Your task to perform on an android device: Go to Yahoo.com Image 0: 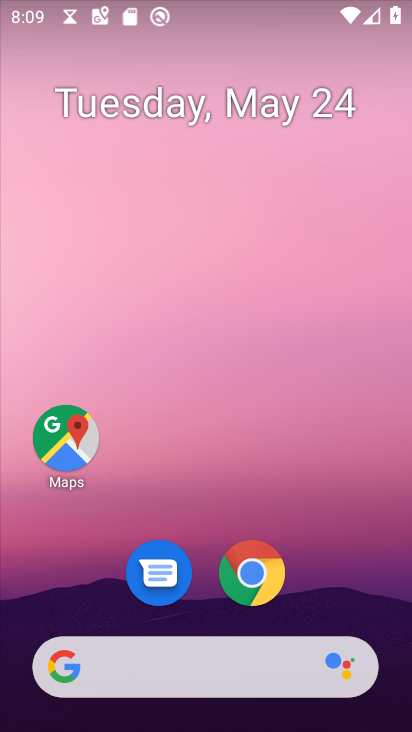
Step 0: drag from (352, 527) to (281, 3)
Your task to perform on an android device: Go to Yahoo.com Image 1: 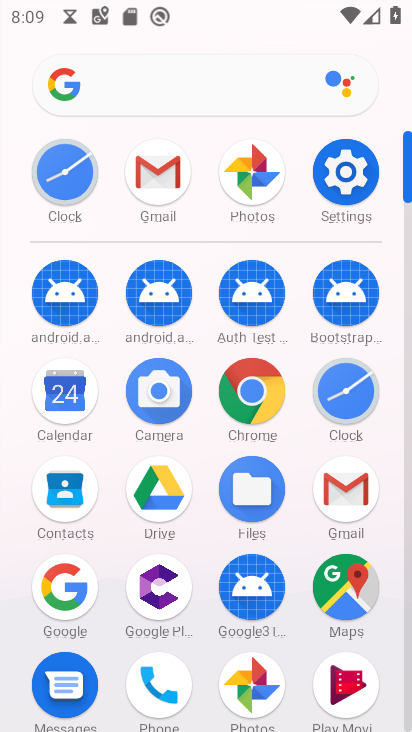
Step 1: click (258, 387)
Your task to perform on an android device: Go to Yahoo.com Image 2: 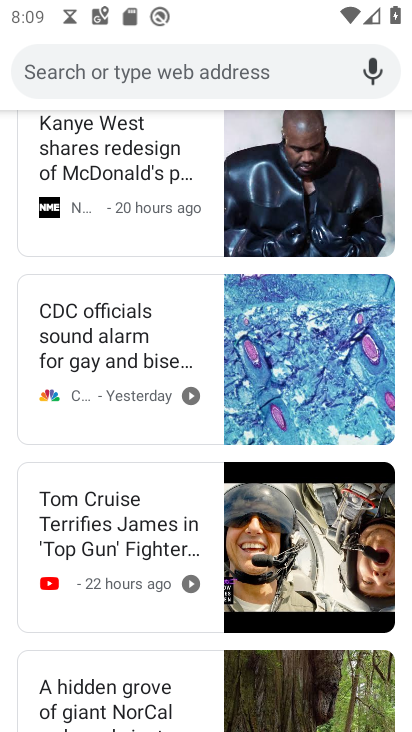
Step 2: drag from (170, 123) to (183, 620)
Your task to perform on an android device: Go to Yahoo.com Image 3: 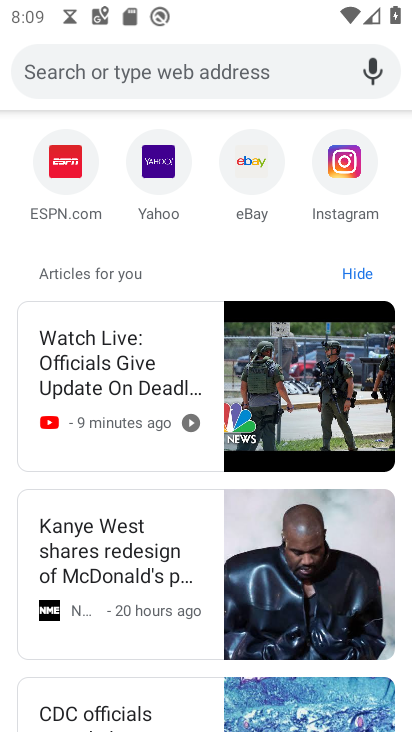
Step 3: click (145, 168)
Your task to perform on an android device: Go to Yahoo.com Image 4: 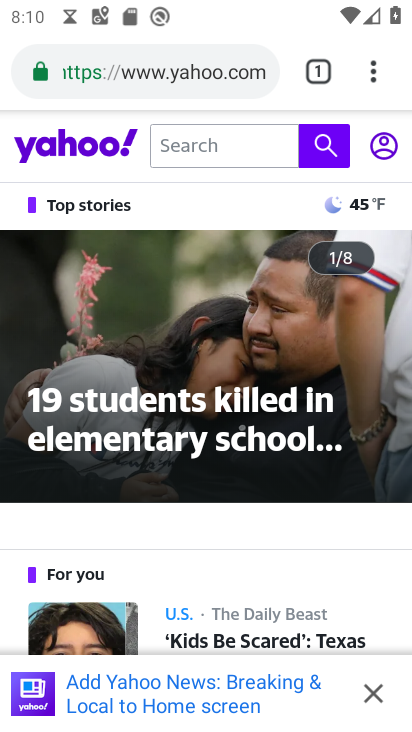
Step 4: task complete